Your task to perform on an android device: Search for usb-a on costco, select the first entry, add it to the cart, then select checkout. Image 0: 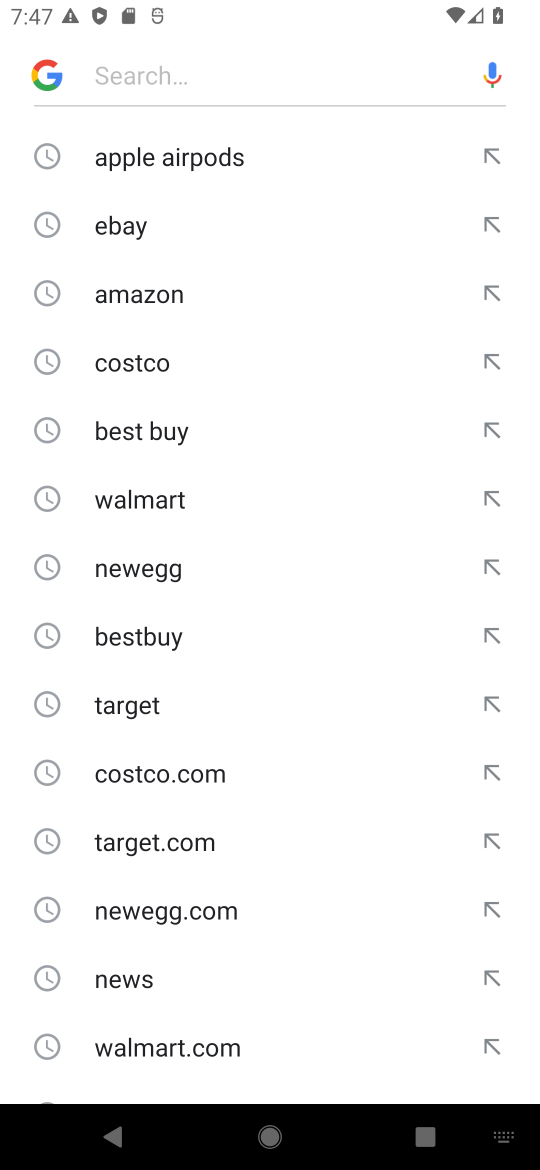
Step 0: press home button
Your task to perform on an android device: Search for usb-a on costco, select the first entry, add it to the cart, then select checkout. Image 1: 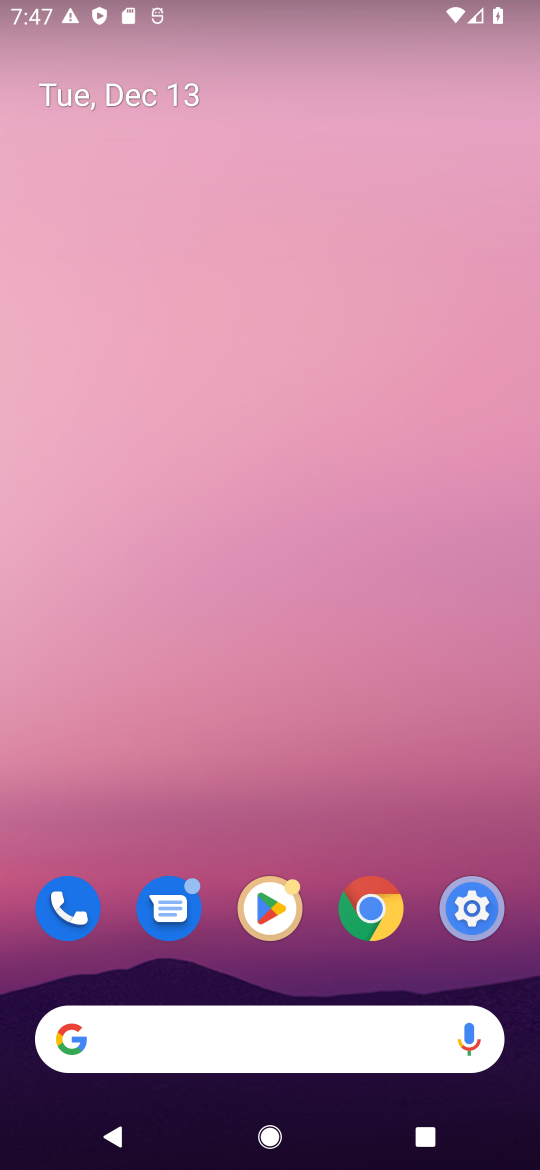
Step 1: click (109, 1034)
Your task to perform on an android device: Search for usb-a on costco, select the first entry, add it to the cart, then select checkout. Image 2: 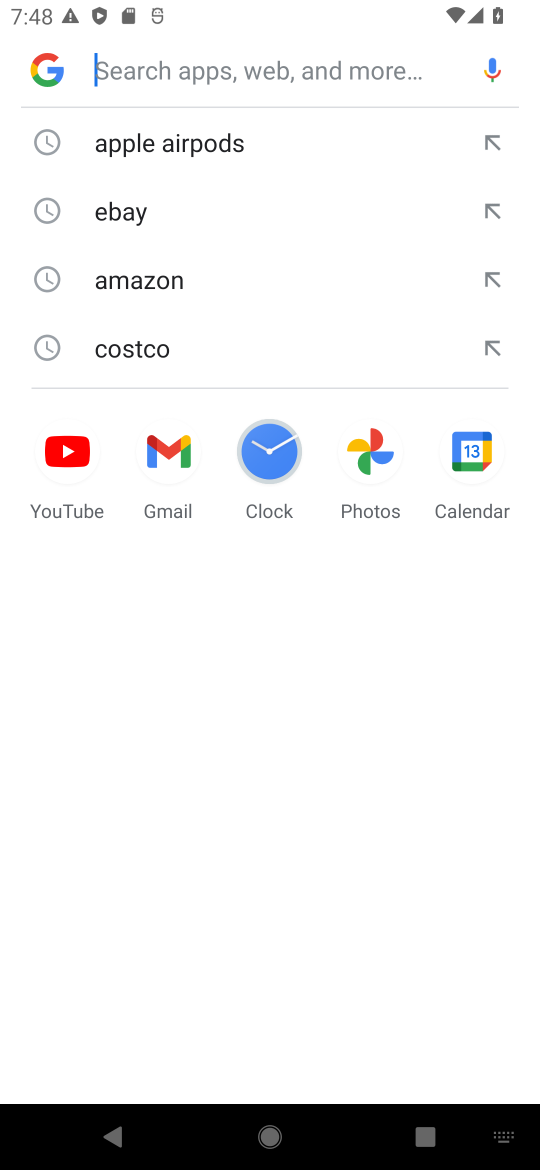
Step 2: type "costco"
Your task to perform on an android device: Search for usb-a on costco, select the first entry, add it to the cart, then select checkout. Image 3: 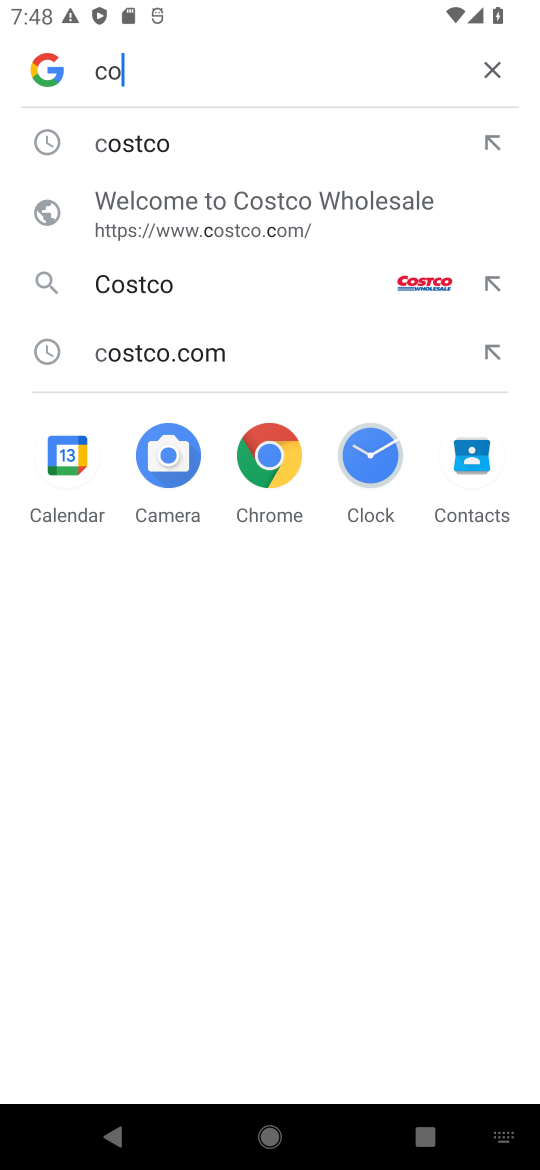
Step 3: press enter
Your task to perform on an android device: Search for usb-a on costco, select the first entry, add it to the cart, then select checkout. Image 4: 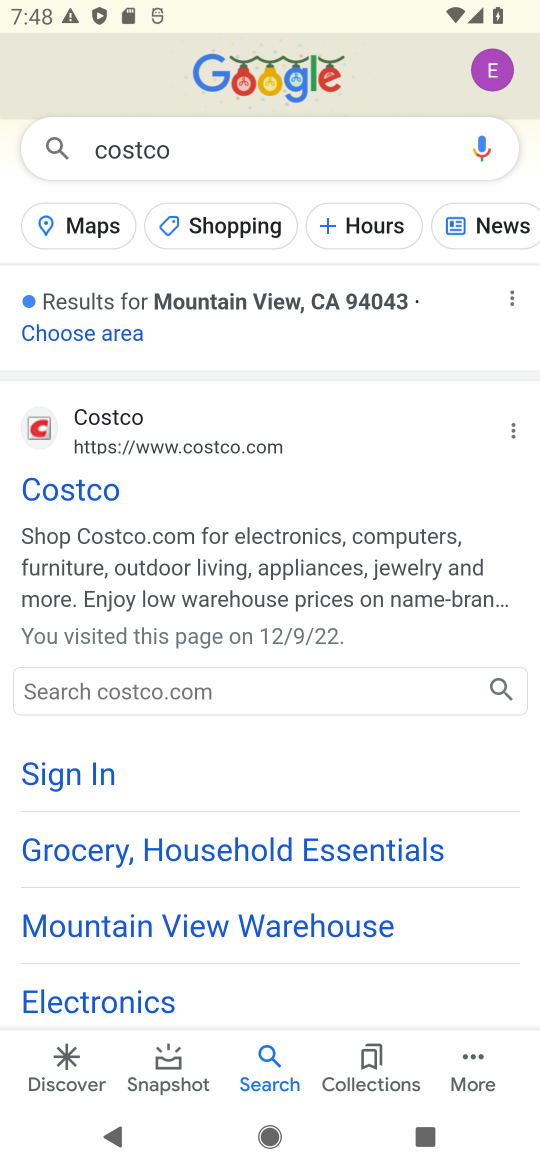
Step 4: click (43, 492)
Your task to perform on an android device: Search for usb-a on costco, select the first entry, add it to the cart, then select checkout. Image 5: 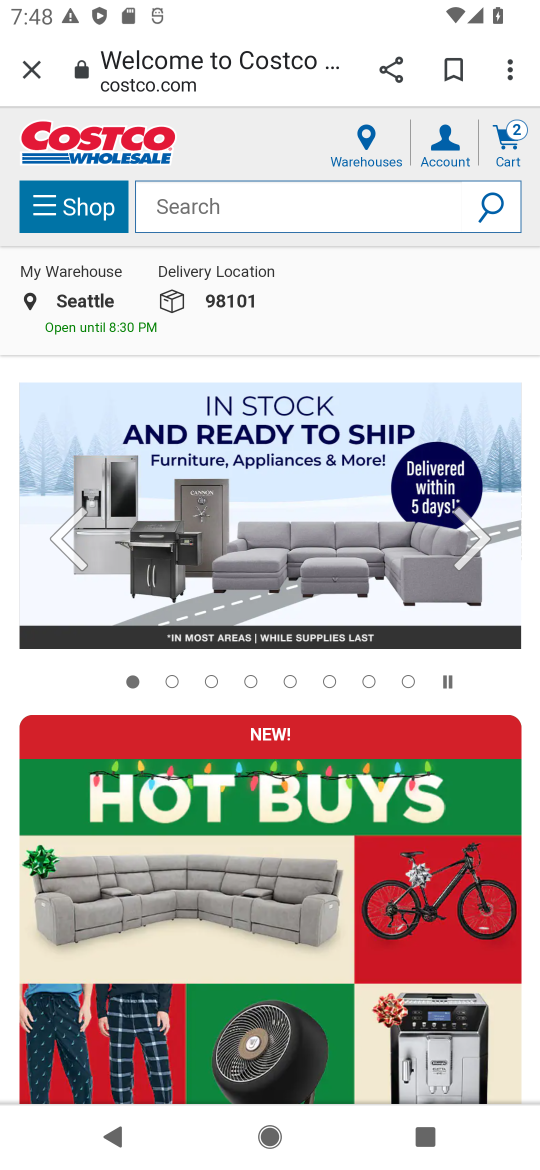
Step 5: click (222, 210)
Your task to perform on an android device: Search for usb-a on costco, select the first entry, add it to the cart, then select checkout. Image 6: 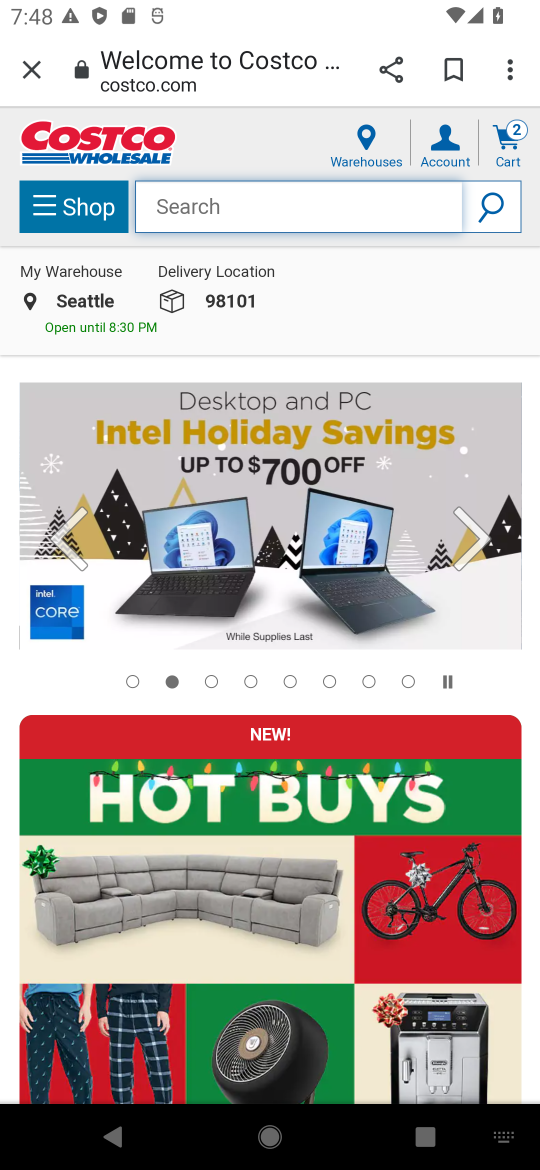
Step 6: type "usb-a"
Your task to perform on an android device: Search for usb-a on costco, select the first entry, add it to the cart, then select checkout. Image 7: 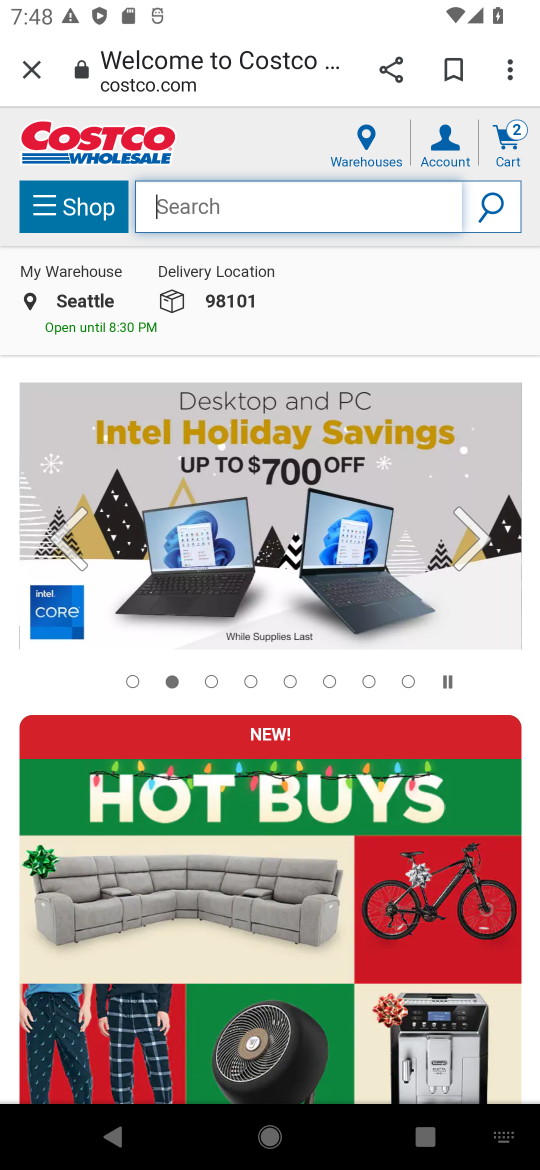
Step 7: press enter
Your task to perform on an android device: Search for usb-a on costco, select the first entry, add it to the cart, then select checkout. Image 8: 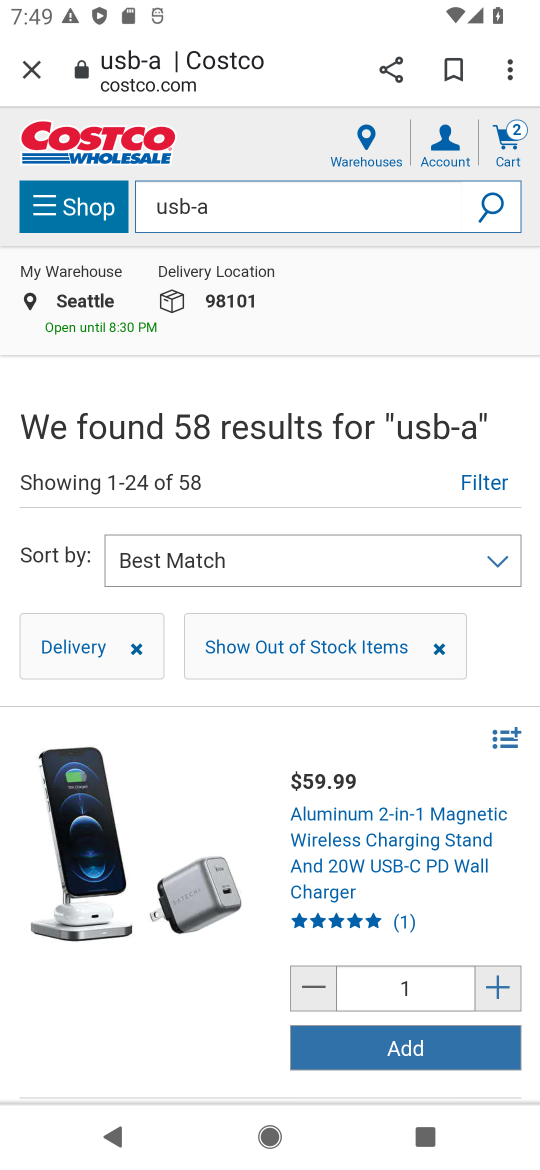
Step 8: task complete